Your task to perform on an android device: turn off priority inbox in the gmail app Image 0: 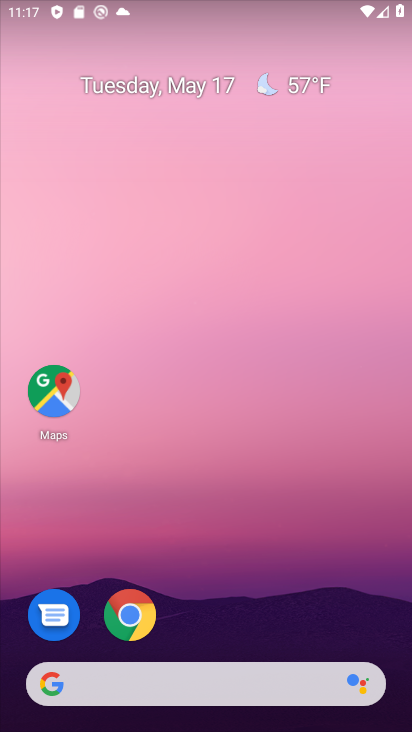
Step 0: drag from (358, 627) to (250, 70)
Your task to perform on an android device: turn off priority inbox in the gmail app Image 1: 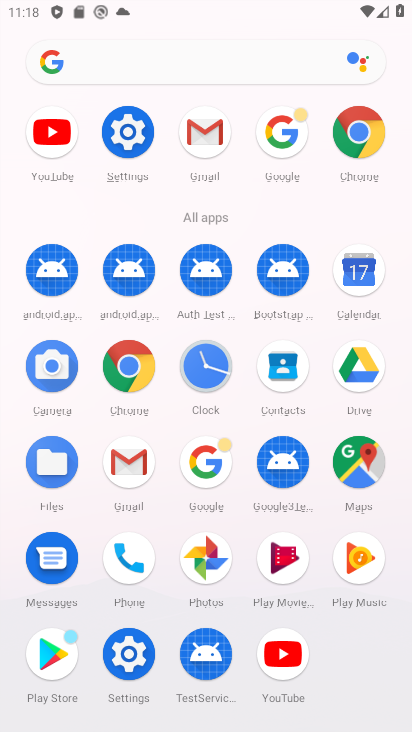
Step 1: click (128, 473)
Your task to perform on an android device: turn off priority inbox in the gmail app Image 2: 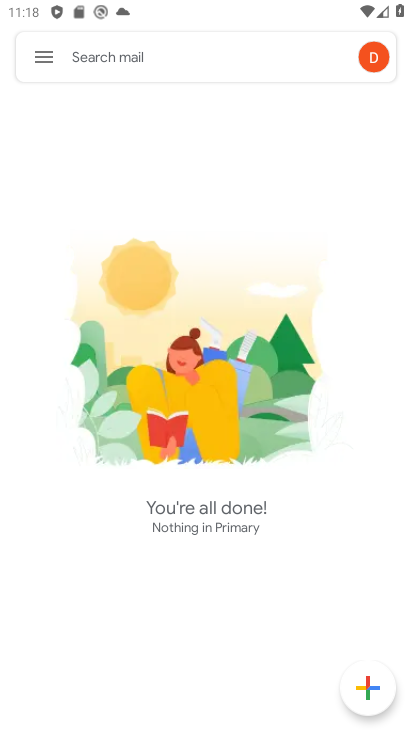
Step 2: click (35, 57)
Your task to perform on an android device: turn off priority inbox in the gmail app Image 3: 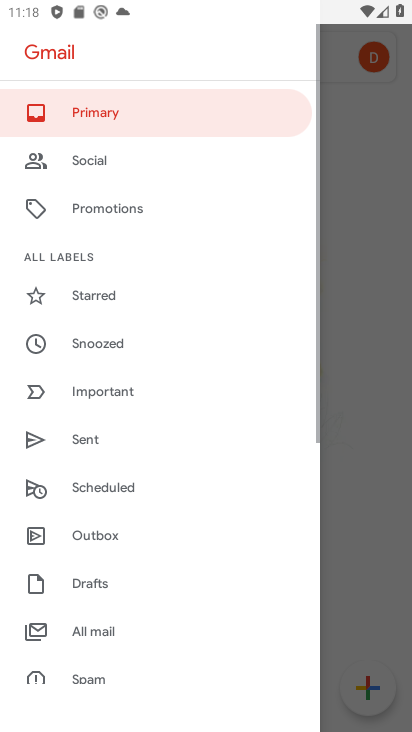
Step 3: drag from (132, 658) to (211, 100)
Your task to perform on an android device: turn off priority inbox in the gmail app Image 4: 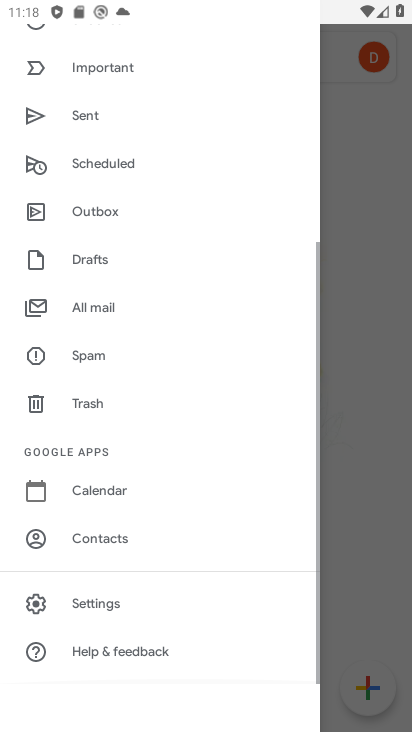
Step 4: click (91, 615)
Your task to perform on an android device: turn off priority inbox in the gmail app Image 5: 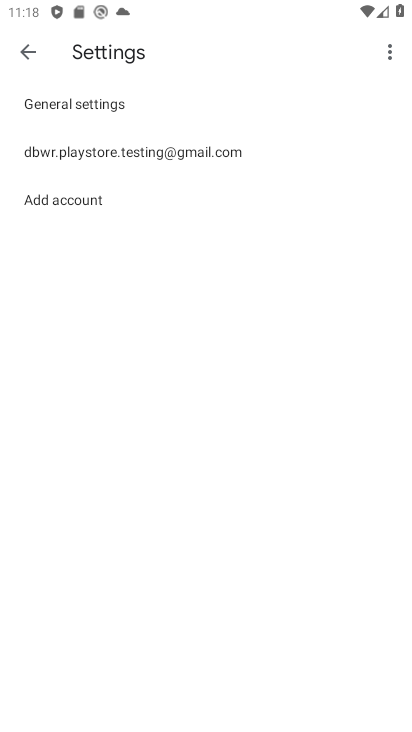
Step 5: click (196, 165)
Your task to perform on an android device: turn off priority inbox in the gmail app Image 6: 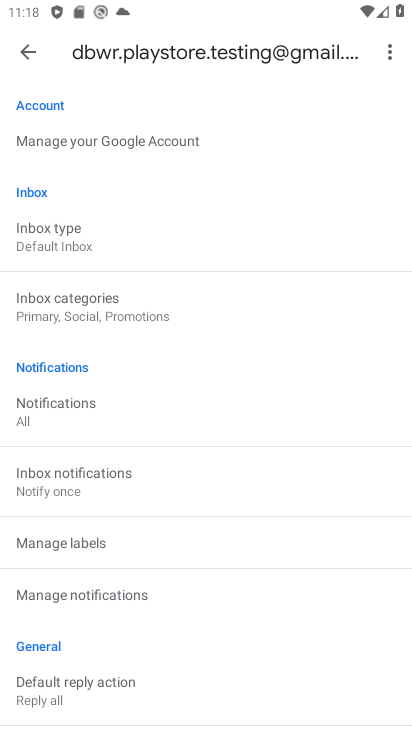
Step 6: click (88, 252)
Your task to perform on an android device: turn off priority inbox in the gmail app Image 7: 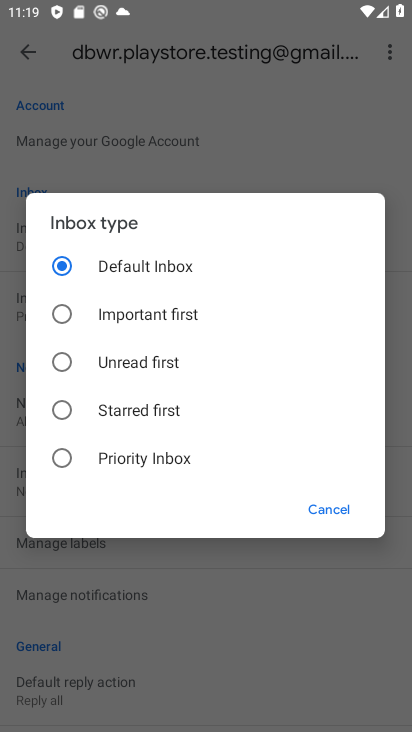
Step 7: task complete